Your task to perform on an android device: toggle priority inbox in the gmail app Image 0: 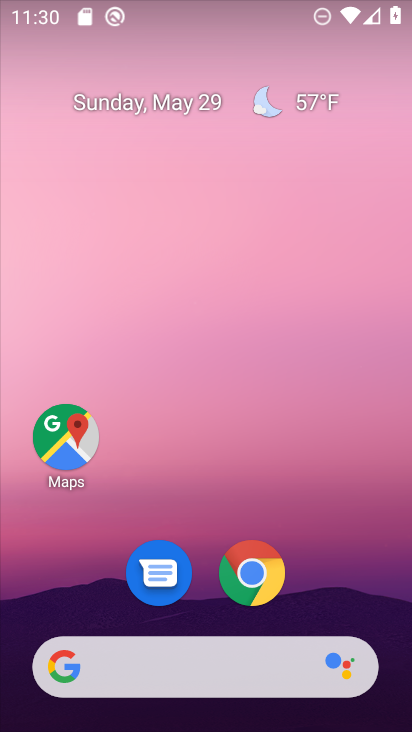
Step 0: drag from (318, 668) to (257, 106)
Your task to perform on an android device: toggle priority inbox in the gmail app Image 1: 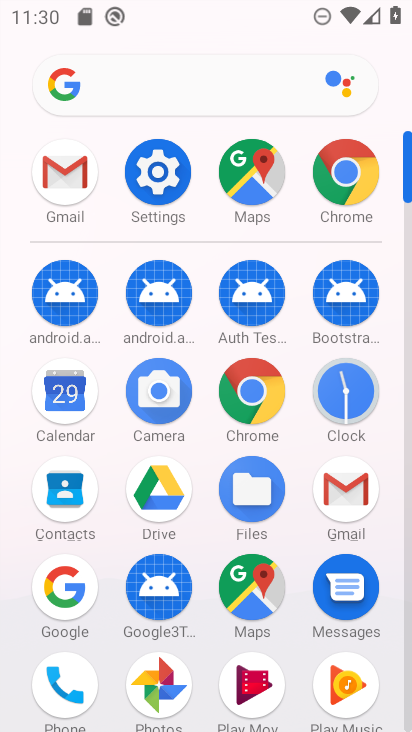
Step 1: click (334, 476)
Your task to perform on an android device: toggle priority inbox in the gmail app Image 2: 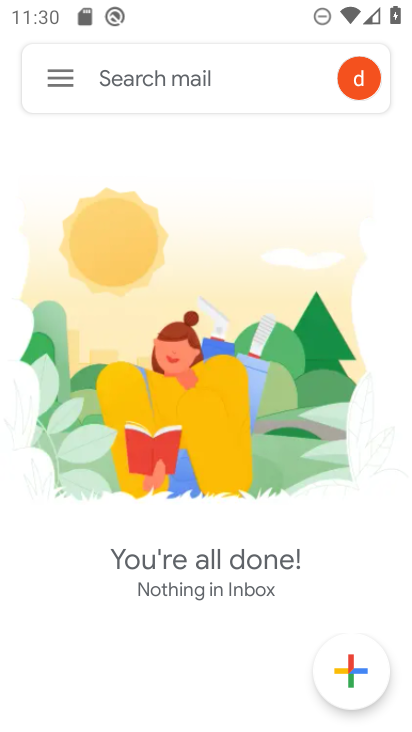
Step 2: click (67, 68)
Your task to perform on an android device: toggle priority inbox in the gmail app Image 3: 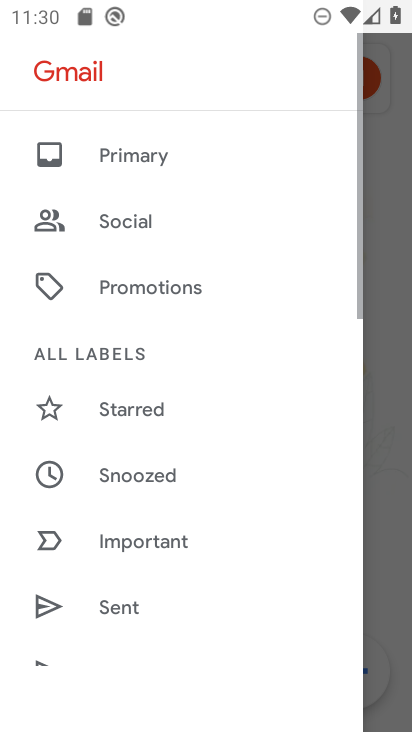
Step 3: drag from (81, 610) to (77, 167)
Your task to perform on an android device: toggle priority inbox in the gmail app Image 4: 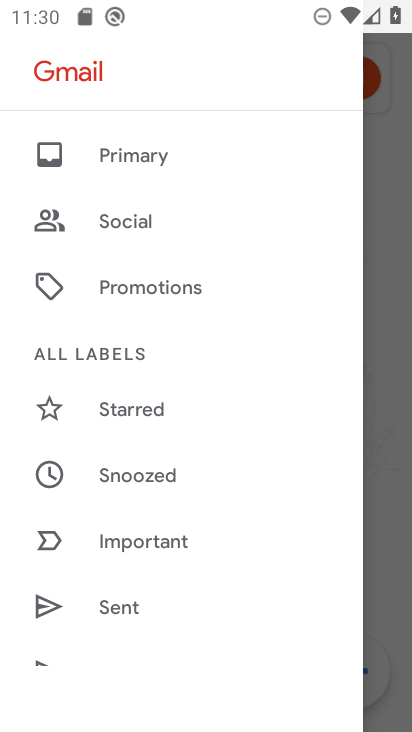
Step 4: drag from (191, 513) to (220, 144)
Your task to perform on an android device: toggle priority inbox in the gmail app Image 5: 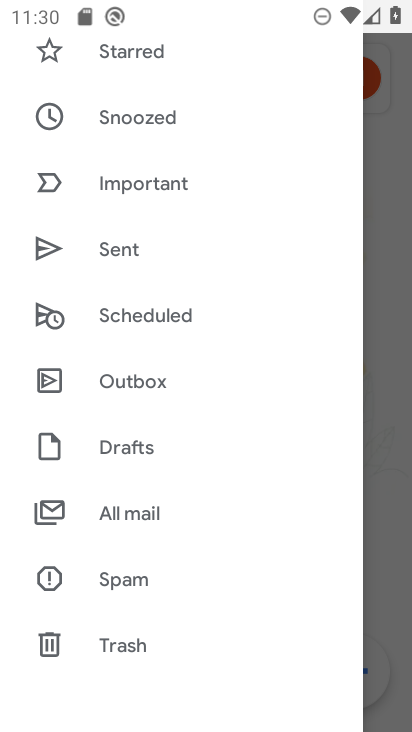
Step 5: drag from (207, 650) to (248, 242)
Your task to perform on an android device: toggle priority inbox in the gmail app Image 6: 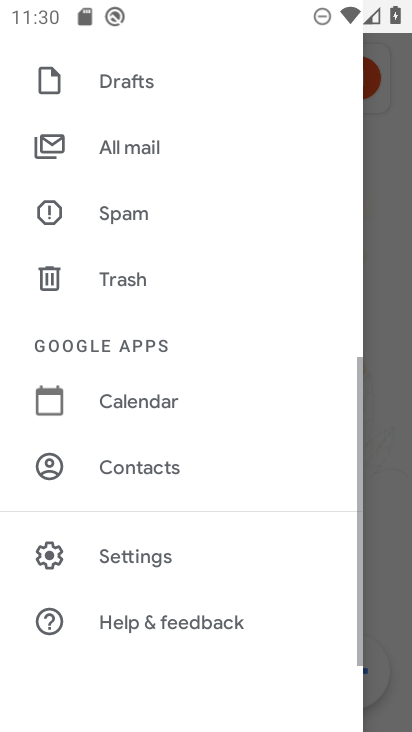
Step 6: click (195, 557)
Your task to perform on an android device: toggle priority inbox in the gmail app Image 7: 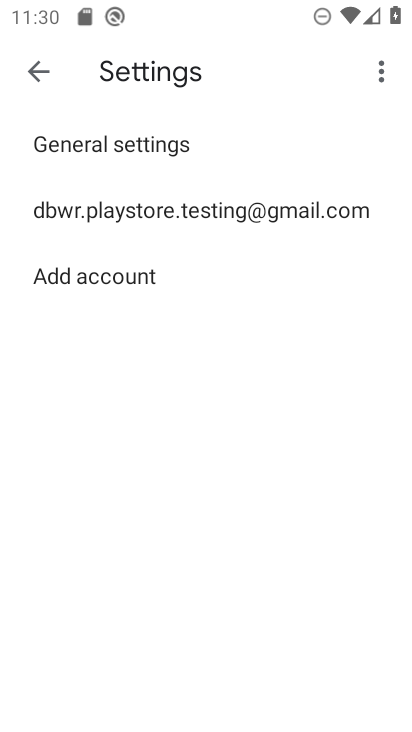
Step 7: click (213, 203)
Your task to perform on an android device: toggle priority inbox in the gmail app Image 8: 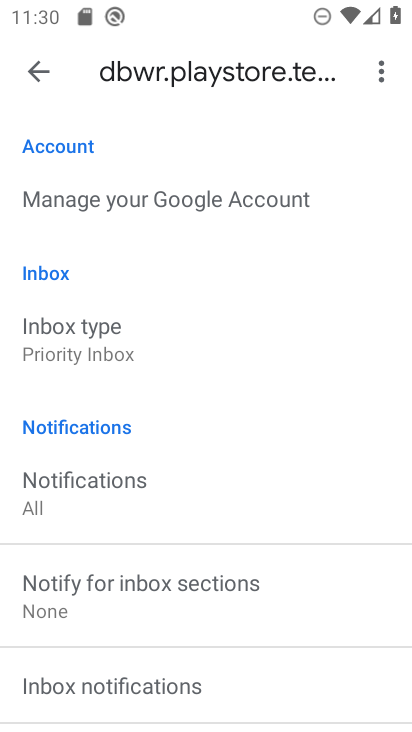
Step 8: click (132, 347)
Your task to perform on an android device: toggle priority inbox in the gmail app Image 9: 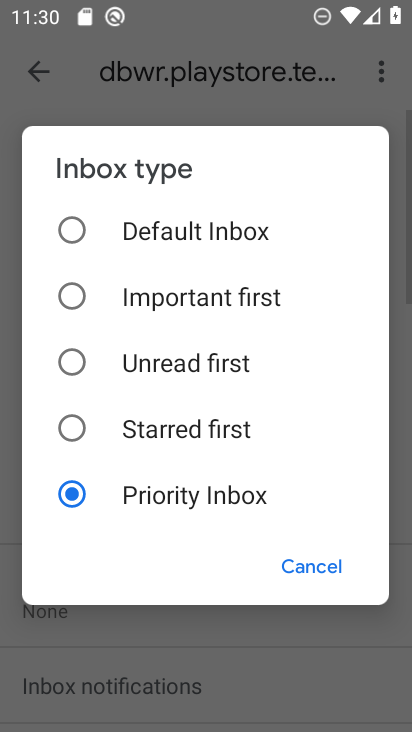
Step 9: click (79, 223)
Your task to perform on an android device: toggle priority inbox in the gmail app Image 10: 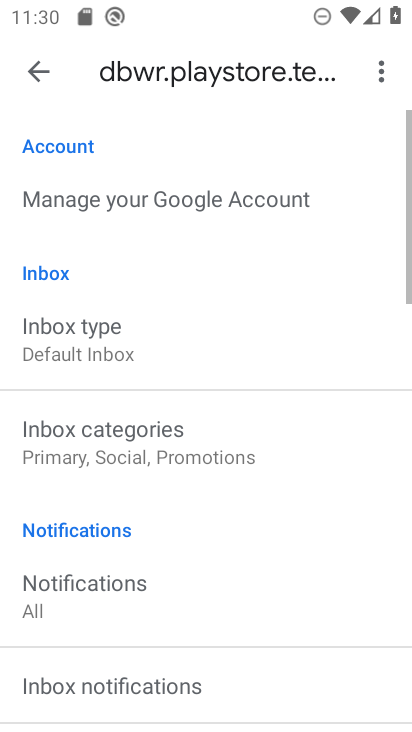
Step 10: task complete